Your task to perform on an android device: Open my contact list Image 0: 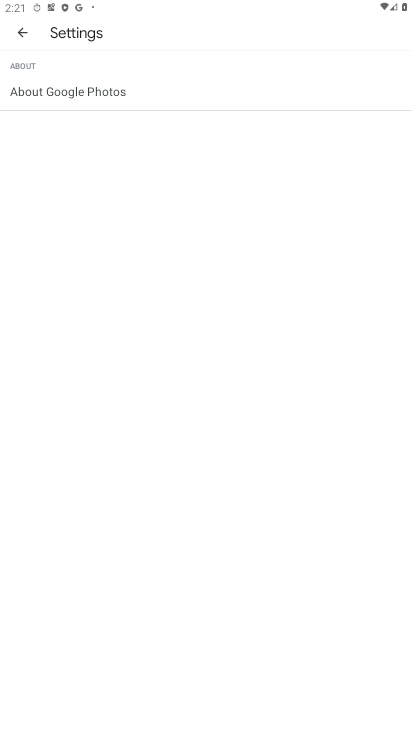
Step 0: press home button
Your task to perform on an android device: Open my contact list Image 1: 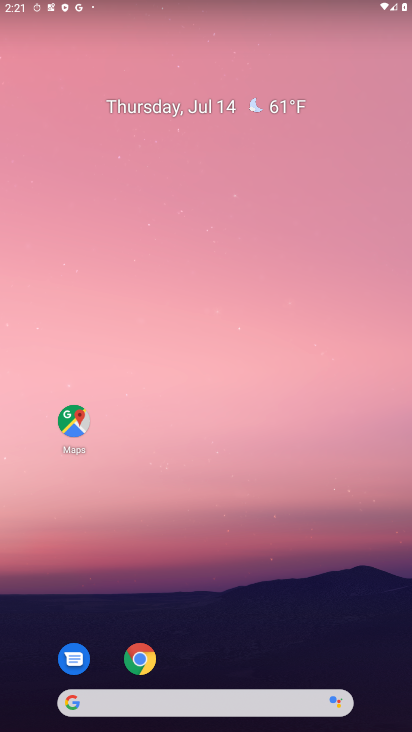
Step 1: drag from (241, 678) to (196, 69)
Your task to perform on an android device: Open my contact list Image 2: 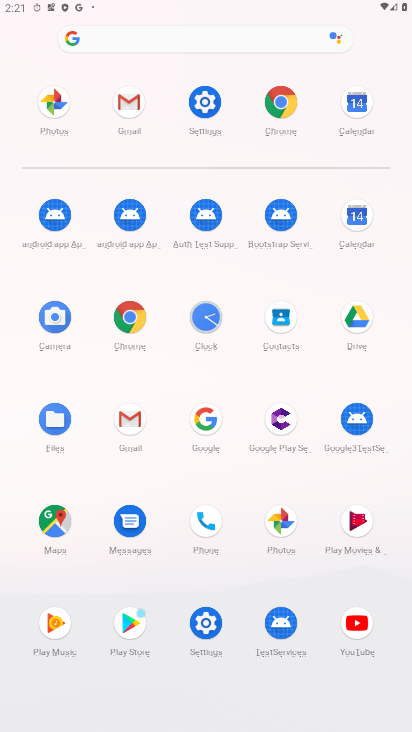
Step 2: click (213, 525)
Your task to perform on an android device: Open my contact list Image 3: 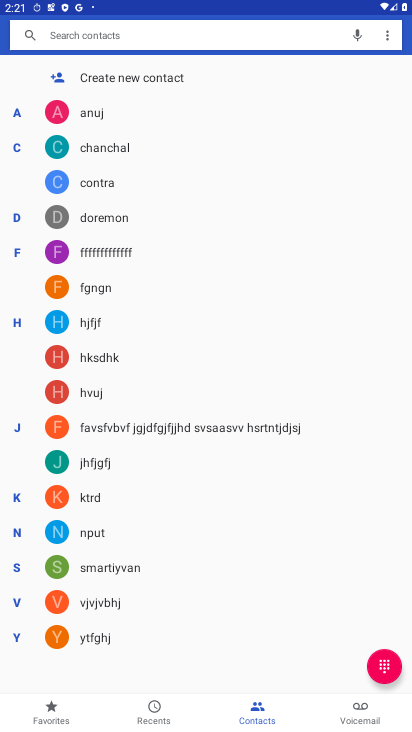
Step 3: task complete